Your task to perform on an android device: Search for seafood restaurants on Google Maps Image 0: 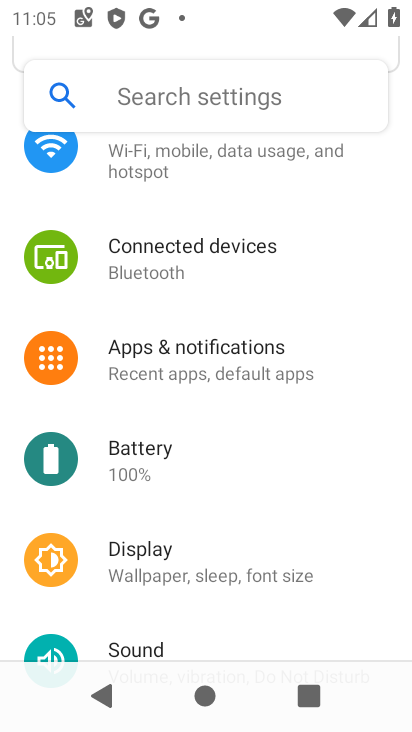
Step 0: press home button
Your task to perform on an android device: Search for seafood restaurants on Google Maps Image 1: 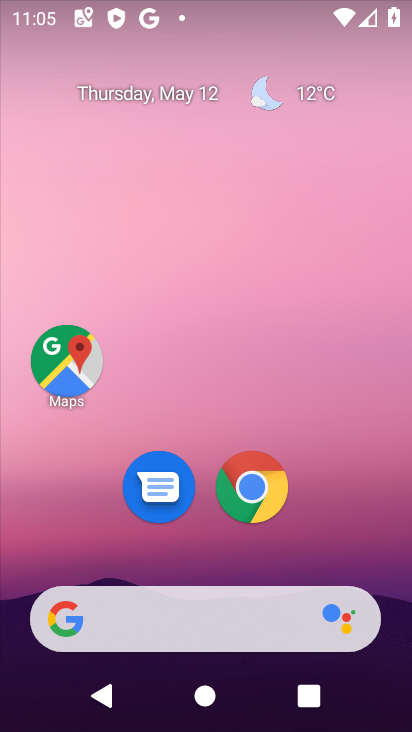
Step 1: click (65, 368)
Your task to perform on an android device: Search for seafood restaurants on Google Maps Image 2: 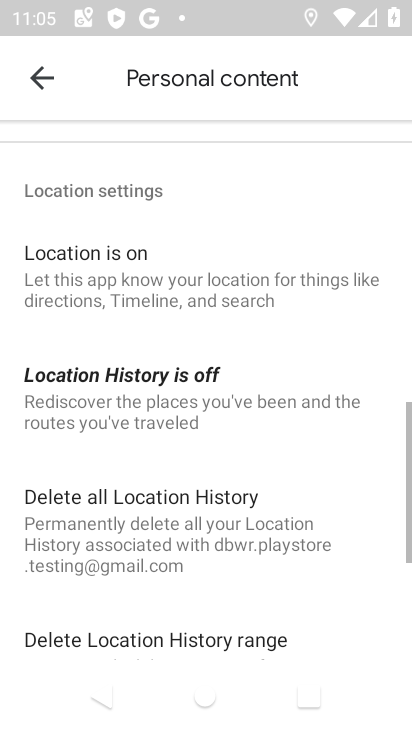
Step 2: click (46, 83)
Your task to perform on an android device: Search for seafood restaurants on Google Maps Image 3: 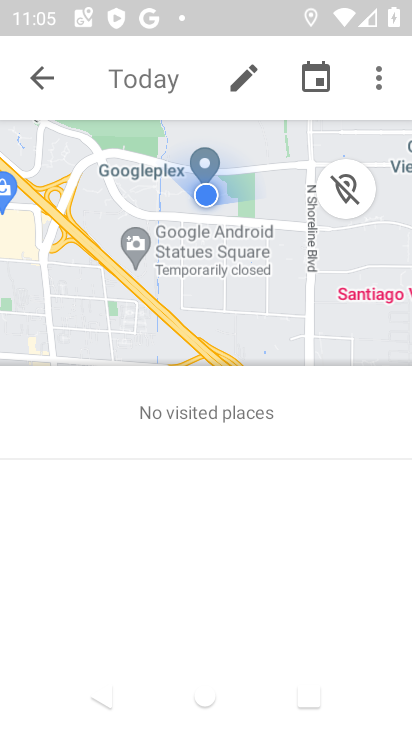
Step 3: click (33, 84)
Your task to perform on an android device: Search for seafood restaurants on Google Maps Image 4: 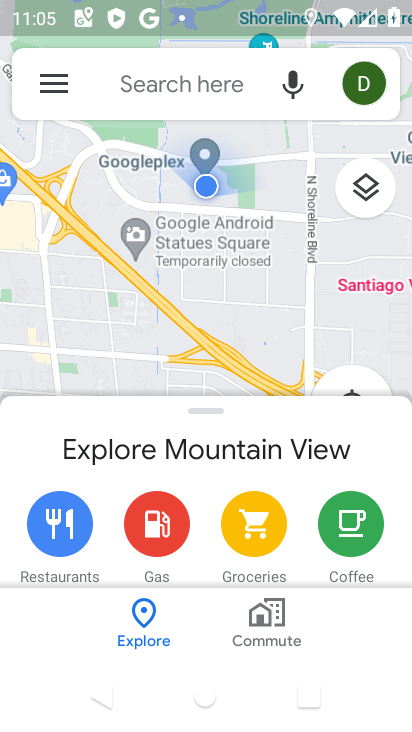
Step 4: click (131, 87)
Your task to perform on an android device: Search for seafood restaurants on Google Maps Image 5: 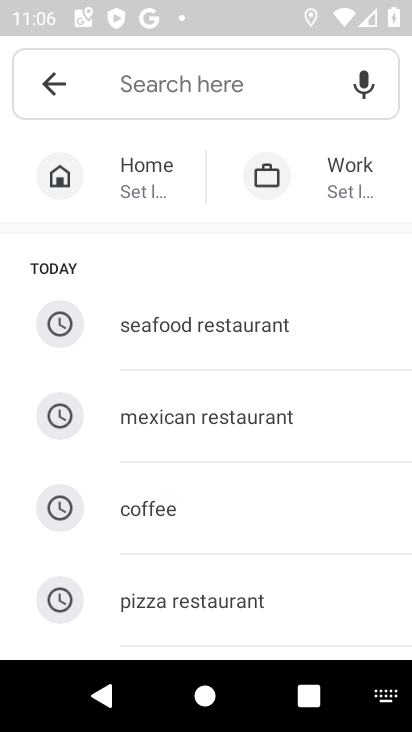
Step 5: type "seafood restaurant "
Your task to perform on an android device: Search for seafood restaurants on Google Maps Image 6: 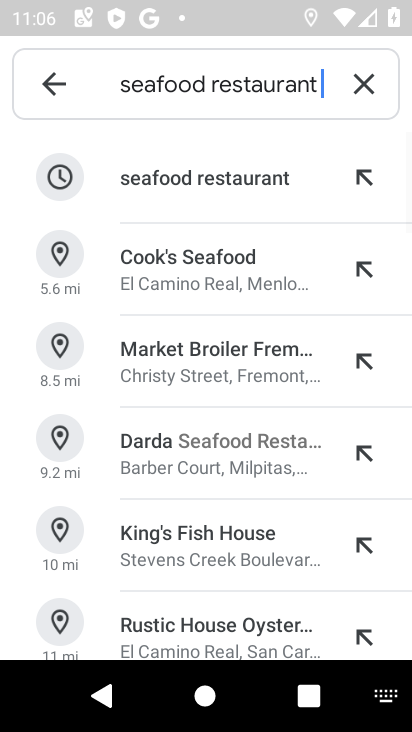
Step 6: click (165, 181)
Your task to perform on an android device: Search for seafood restaurants on Google Maps Image 7: 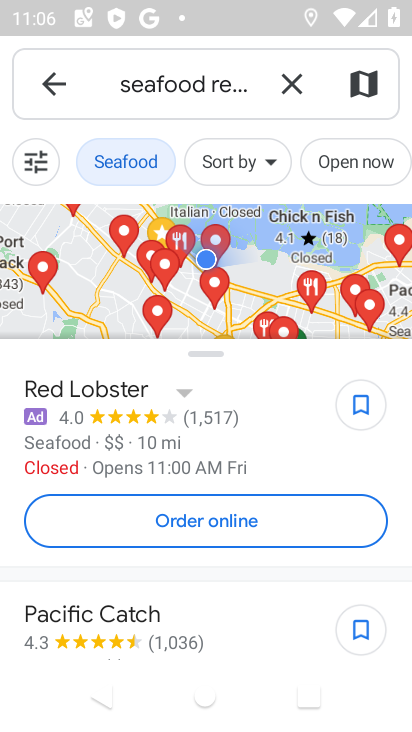
Step 7: task complete